Your task to perform on an android device: Go to Google maps Image 0: 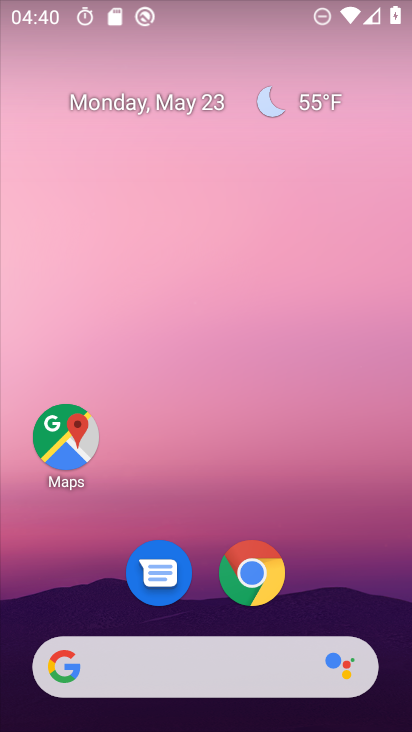
Step 0: click (69, 451)
Your task to perform on an android device: Go to Google maps Image 1: 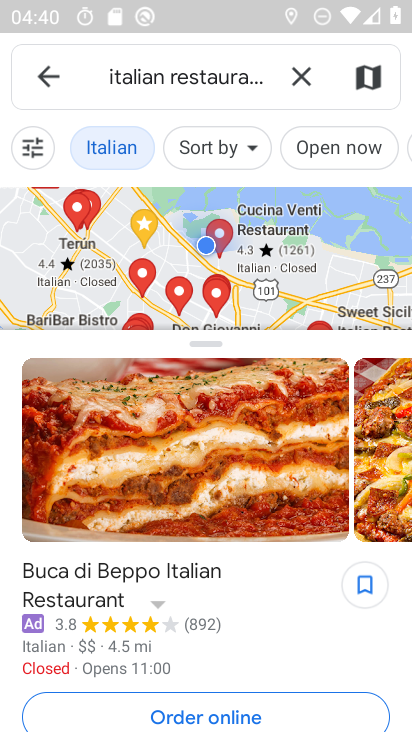
Step 1: task complete